Your task to perform on an android device: Show me recent news Image 0: 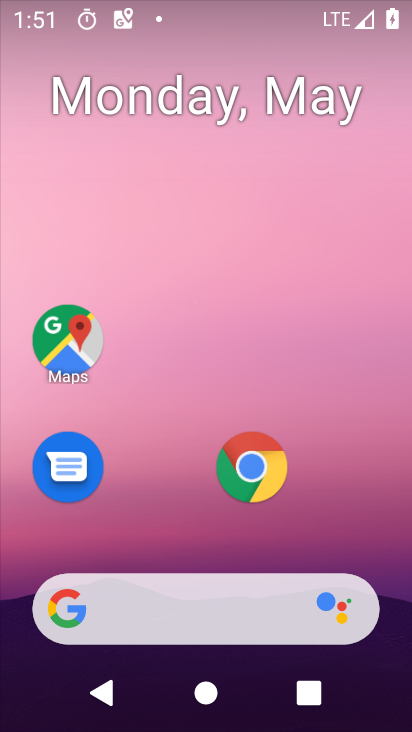
Step 0: drag from (230, 501) to (306, 24)
Your task to perform on an android device: Show me recent news Image 1: 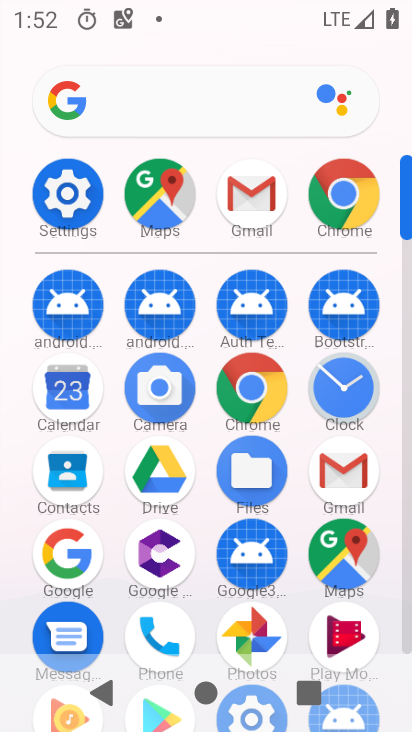
Step 1: click (190, 119)
Your task to perform on an android device: Show me recent news Image 2: 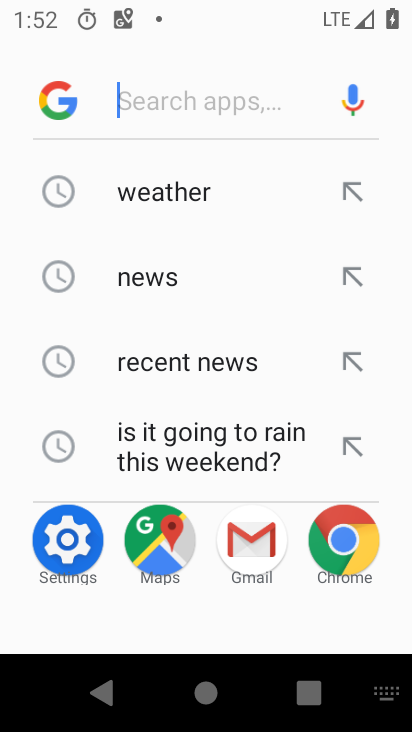
Step 2: click (206, 363)
Your task to perform on an android device: Show me recent news Image 3: 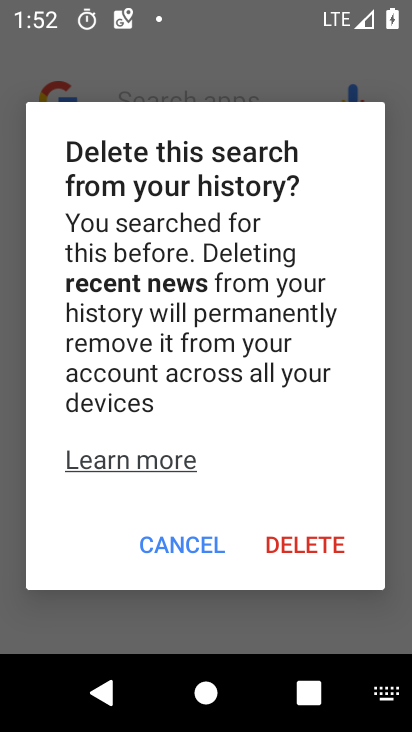
Step 3: task complete